Your task to perform on an android device: Go to battery settings Image 0: 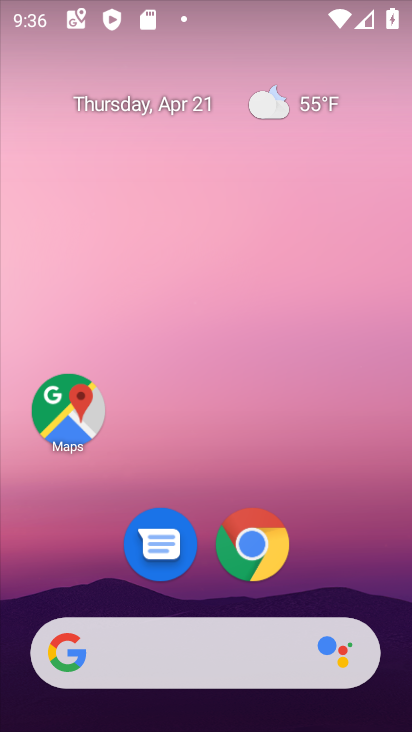
Step 0: drag from (340, 489) to (298, 50)
Your task to perform on an android device: Go to battery settings Image 1: 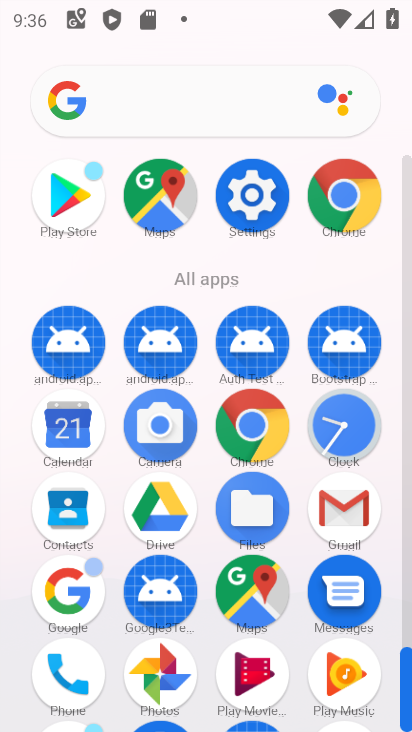
Step 1: drag from (3, 547) to (6, 339)
Your task to perform on an android device: Go to battery settings Image 2: 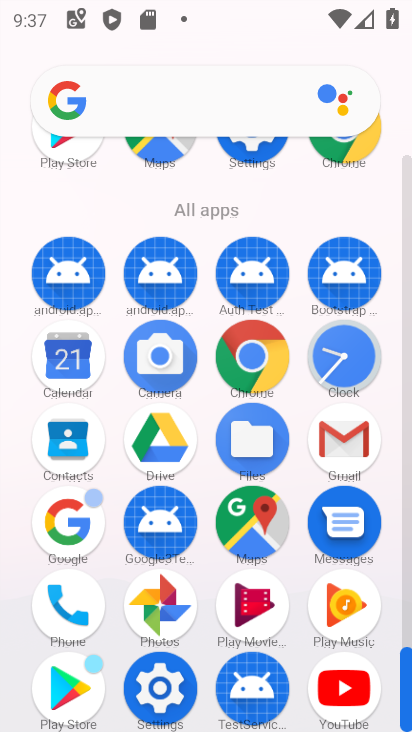
Step 2: click (157, 686)
Your task to perform on an android device: Go to battery settings Image 3: 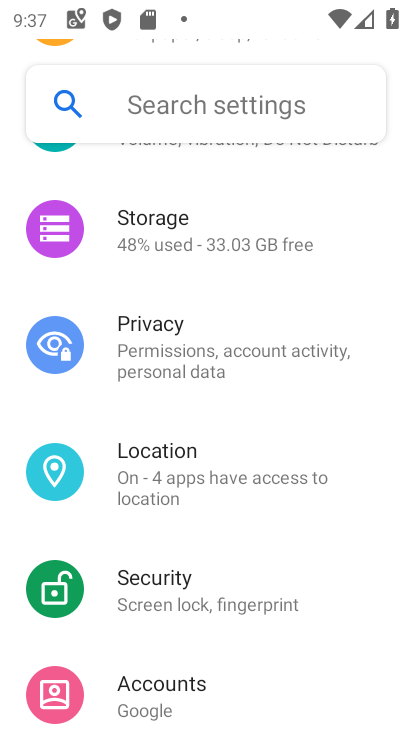
Step 3: drag from (227, 298) to (240, 632)
Your task to perform on an android device: Go to battery settings Image 4: 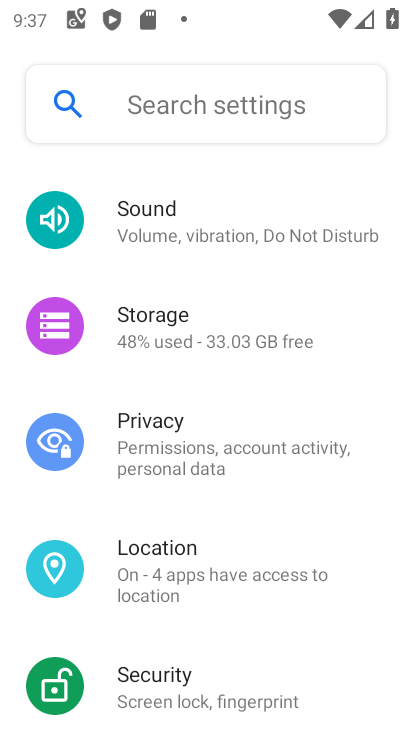
Step 4: drag from (231, 241) to (251, 547)
Your task to perform on an android device: Go to battery settings Image 5: 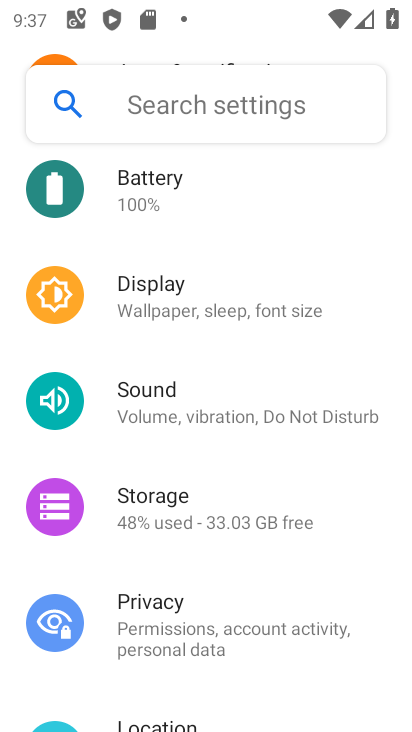
Step 5: click (191, 181)
Your task to perform on an android device: Go to battery settings Image 6: 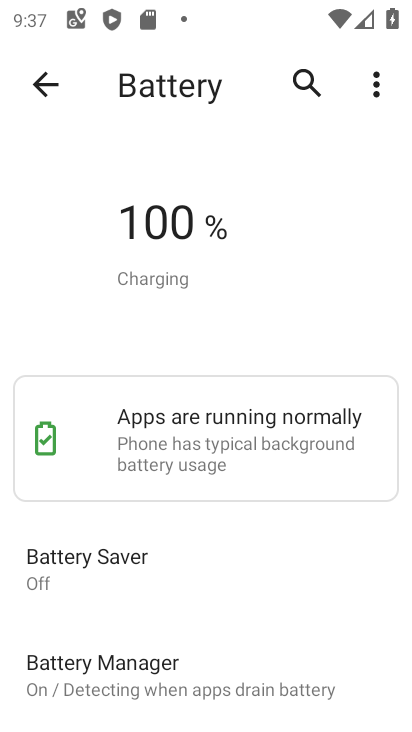
Step 6: task complete